Your task to perform on an android device: Open the stopwatch Image 0: 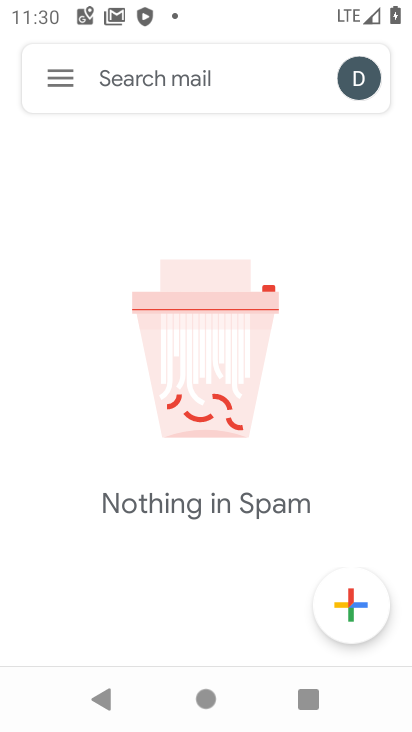
Step 0: press home button
Your task to perform on an android device: Open the stopwatch Image 1: 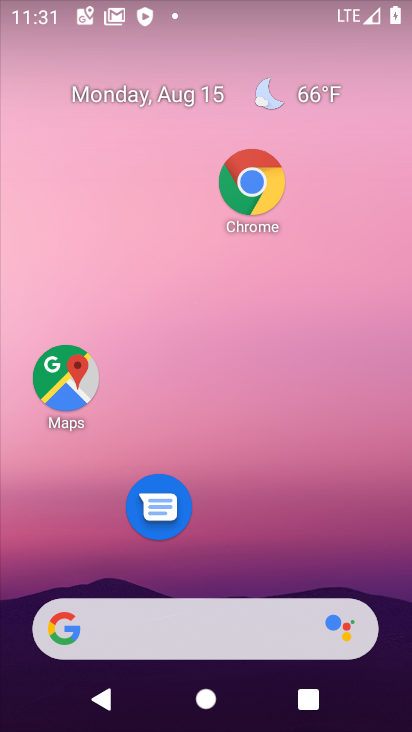
Step 1: drag from (269, 596) to (274, 46)
Your task to perform on an android device: Open the stopwatch Image 2: 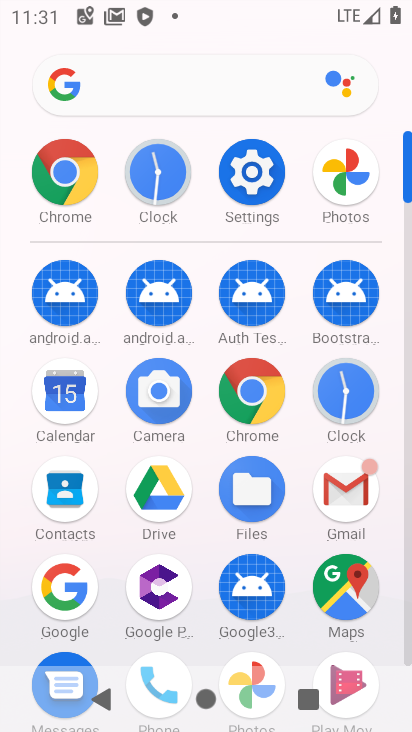
Step 2: click (249, 192)
Your task to perform on an android device: Open the stopwatch Image 3: 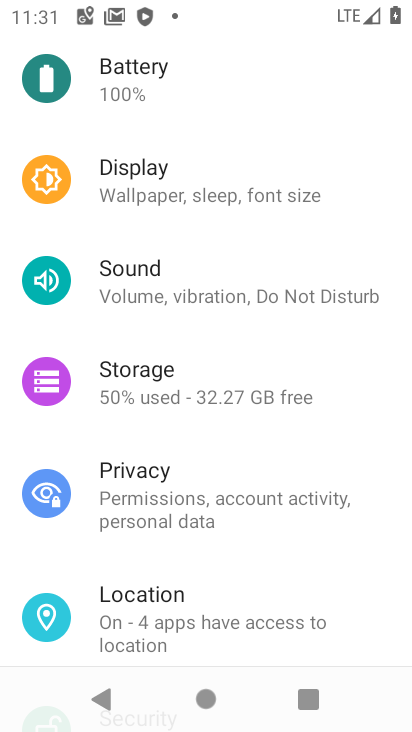
Step 3: press home button
Your task to perform on an android device: Open the stopwatch Image 4: 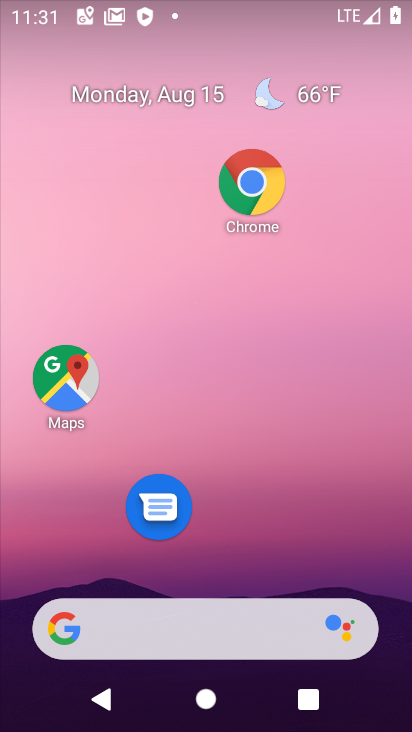
Step 4: click (257, 604)
Your task to perform on an android device: Open the stopwatch Image 5: 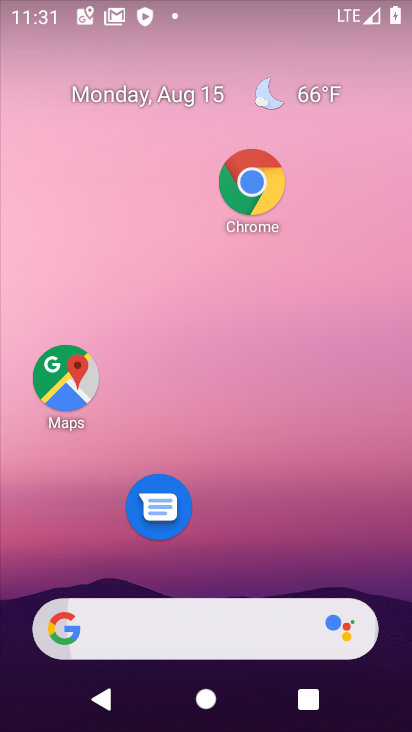
Step 5: drag from (263, 592) to (307, 83)
Your task to perform on an android device: Open the stopwatch Image 6: 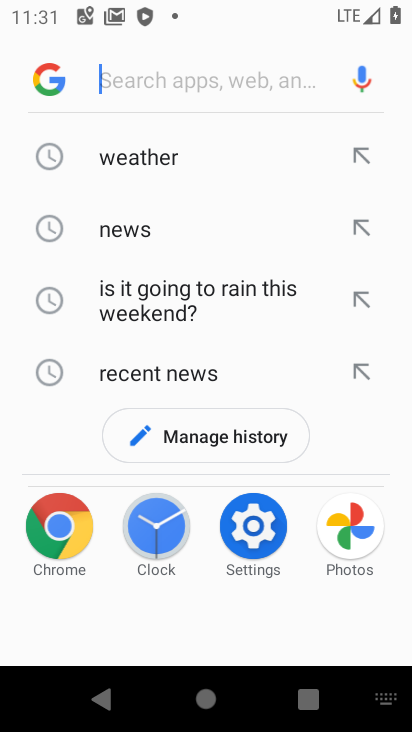
Step 6: press home button
Your task to perform on an android device: Open the stopwatch Image 7: 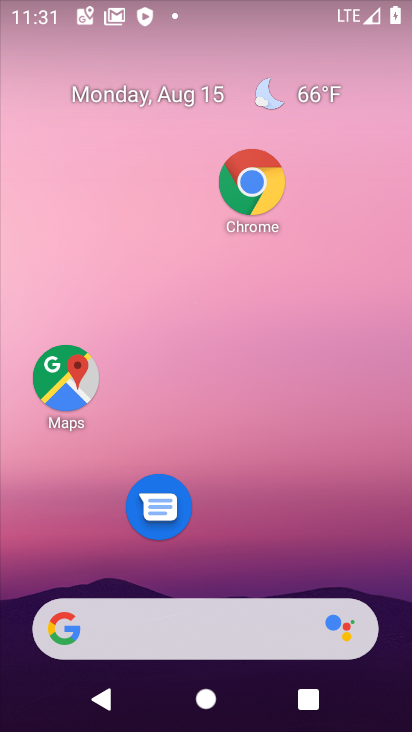
Step 7: drag from (266, 570) to (331, 83)
Your task to perform on an android device: Open the stopwatch Image 8: 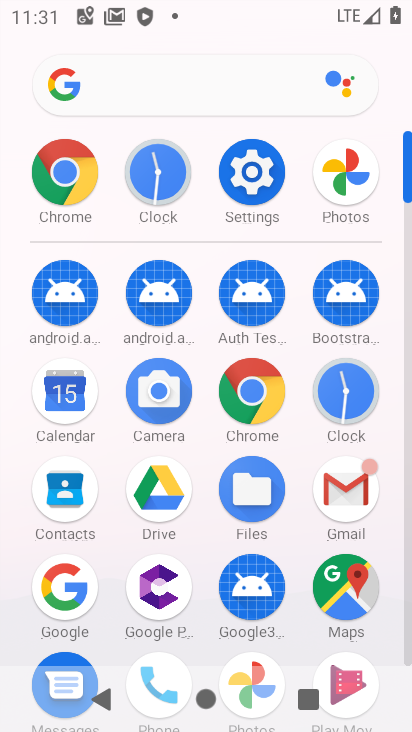
Step 8: click (170, 221)
Your task to perform on an android device: Open the stopwatch Image 9: 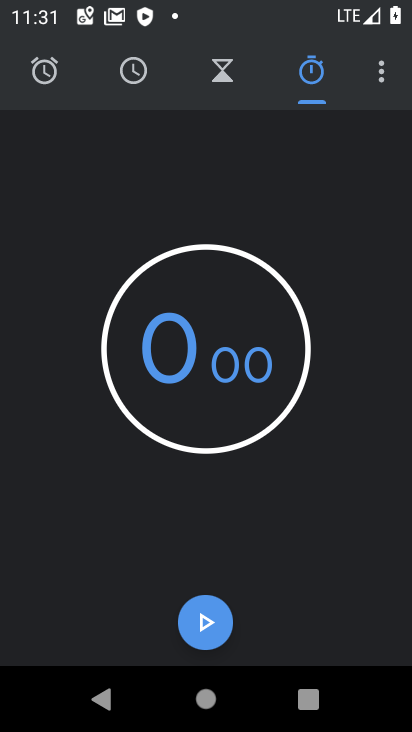
Step 9: task complete